Your task to perform on an android device: open chrome and create a bookmark for the current page Image 0: 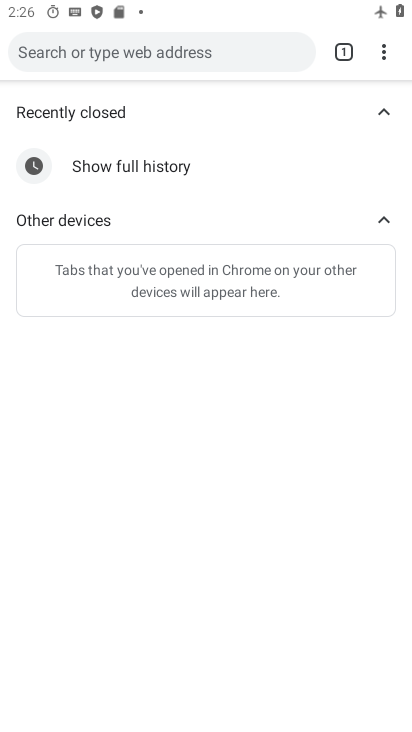
Step 0: press home button
Your task to perform on an android device: open chrome and create a bookmark for the current page Image 1: 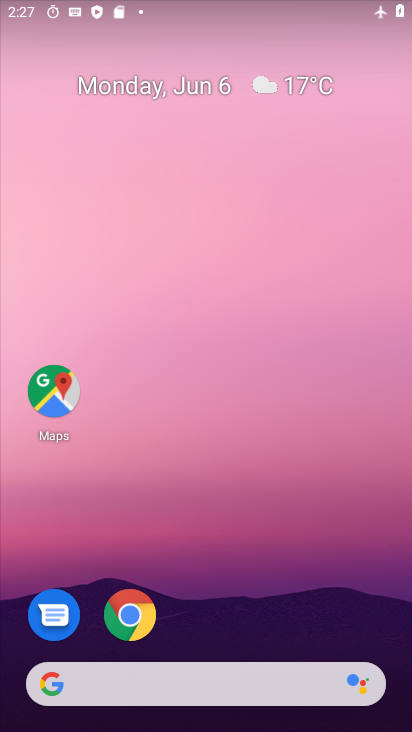
Step 1: click (136, 622)
Your task to perform on an android device: open chrome and create a bookmark for the current page Image 2: 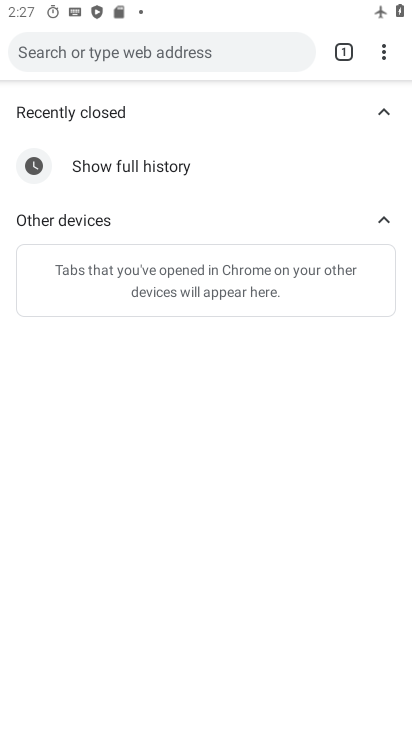
Step 2: click (384, 55)
Your task to perform on an android device: open chrome and create a bookmark for the current page Image 3: 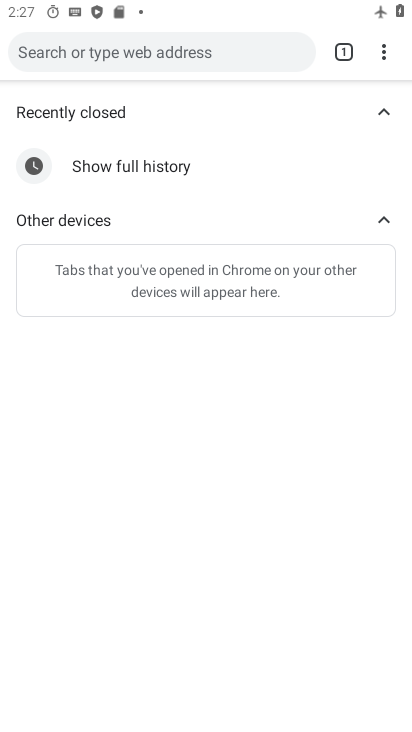
Step 3: click (391, 51)
Your task to perform on an android device: open chrome and create a bookmark for the current page Image 4: 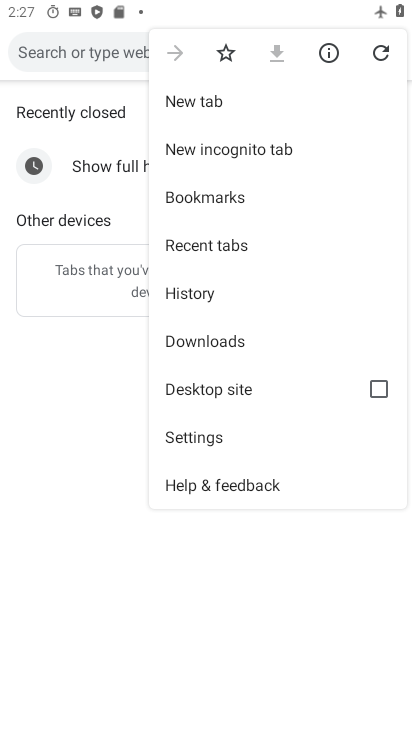
Step 4: click (219, 52)
Your task to perform on an android device: open chrome and create a bookmark for the current page Image 5: 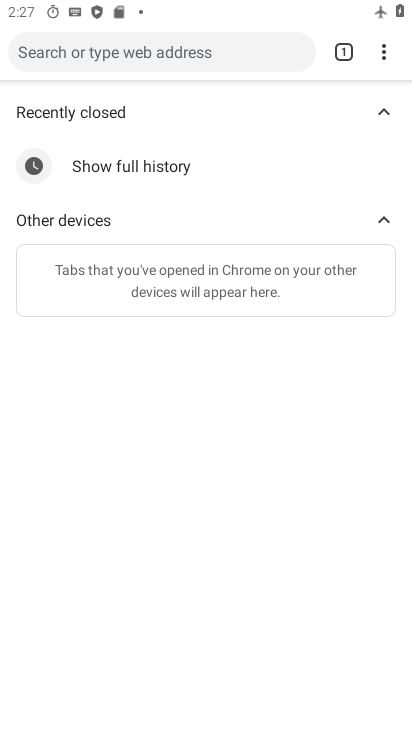
Step 5: task complete